Your task to perform on an android device: Go to ESPN.com Image 0: 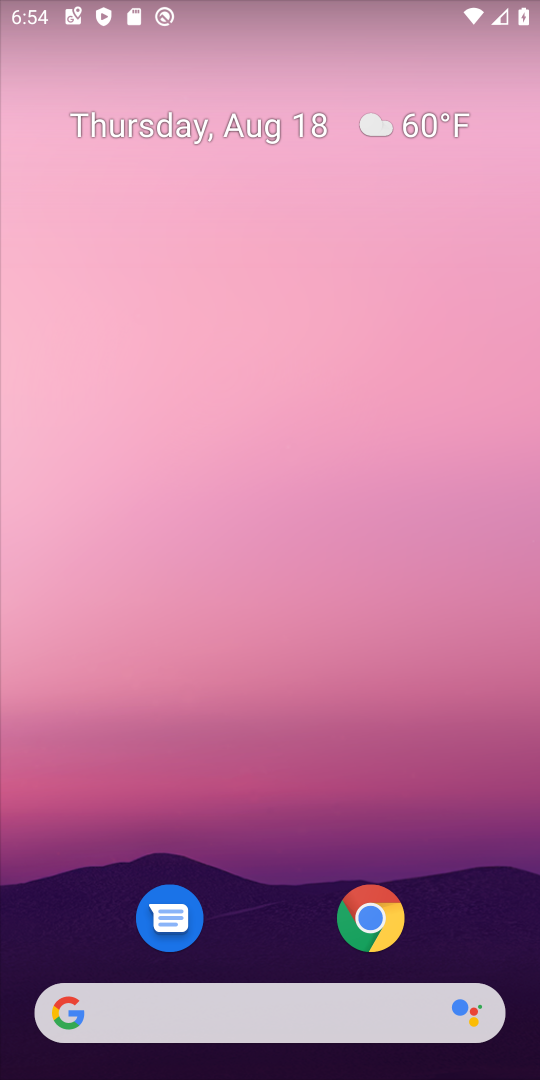
Step 0: press home button
Your task to perform on an android device: Go to ESPN.com Image 1: 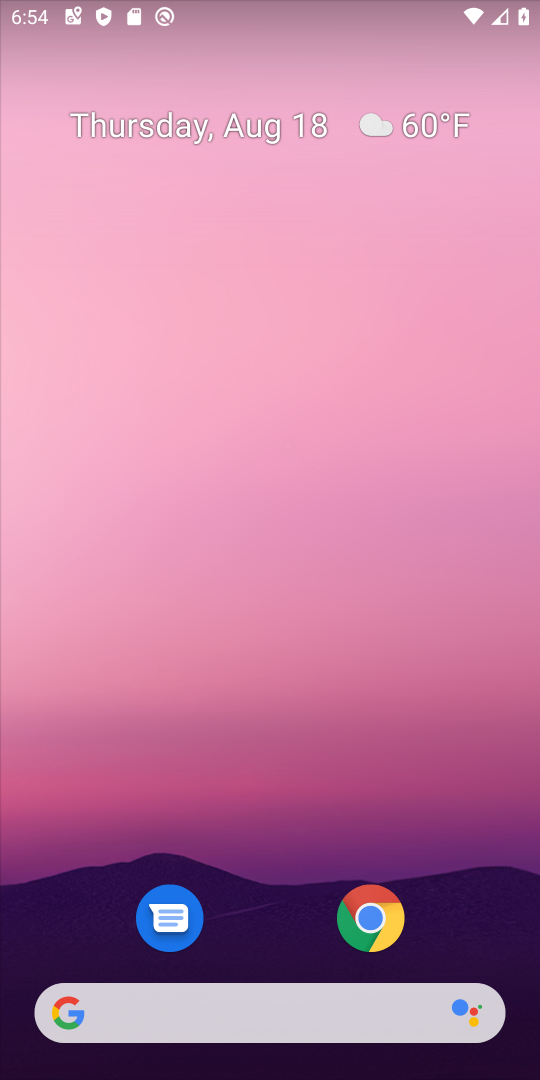
Step 1: click (61, 1016)
Your task to perform on an android device: Go to ESPN.com Image 2: 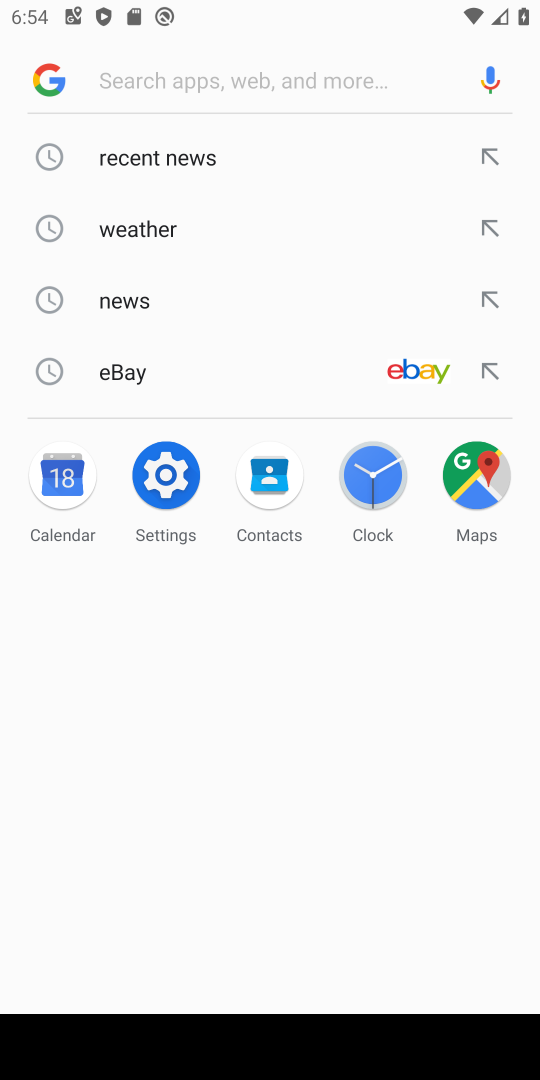
Step 2: type "ESPN.com"
Your task to perform on an android device: Go to ESPN.com Image 3: 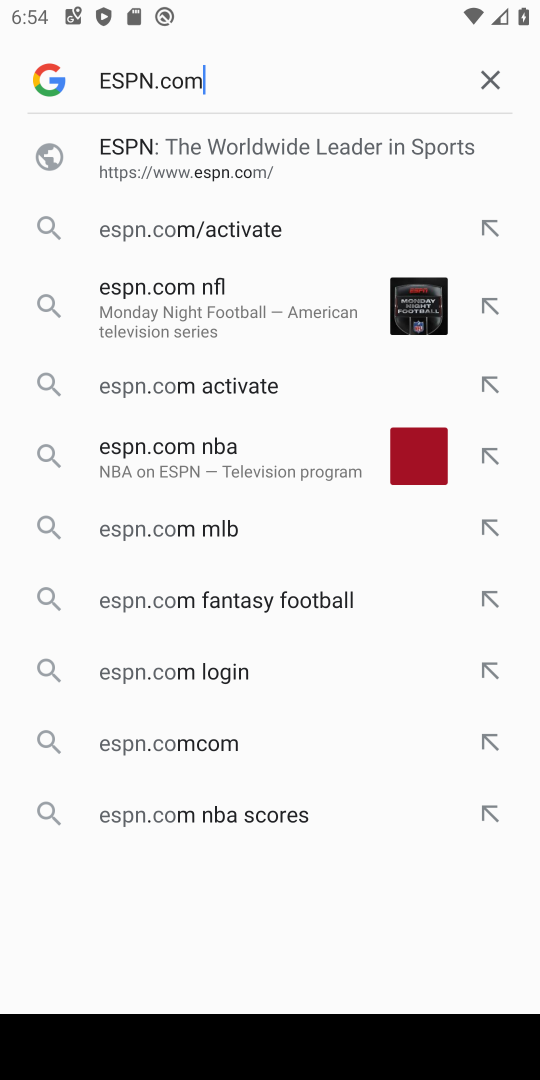
Step 3: press enter
Your task to perform on an android device: Go to ESPN.com Image 4: 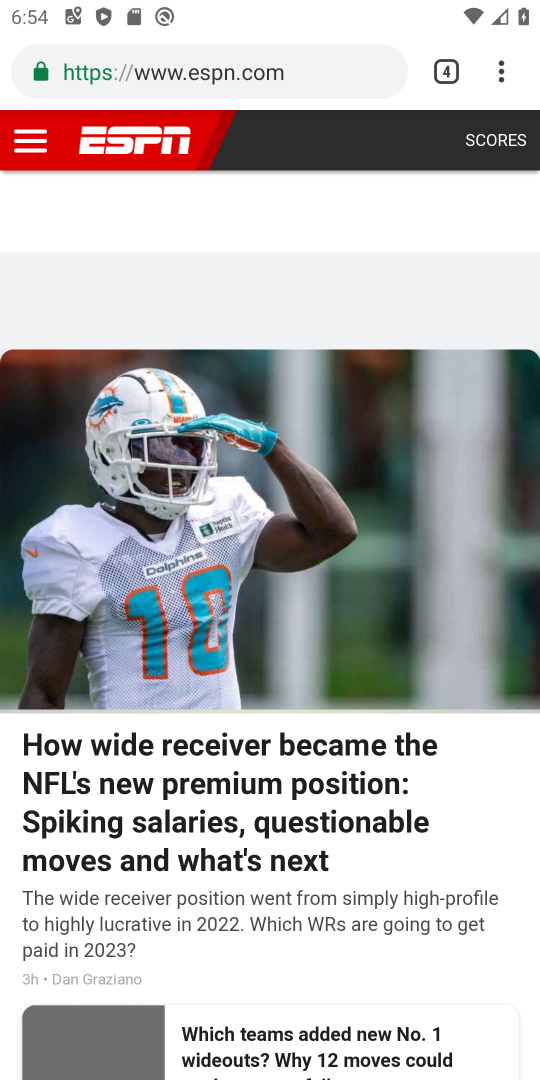
Step 4: task complete